Your task to perform on an android device: add a contact in the contacts app Image 0: 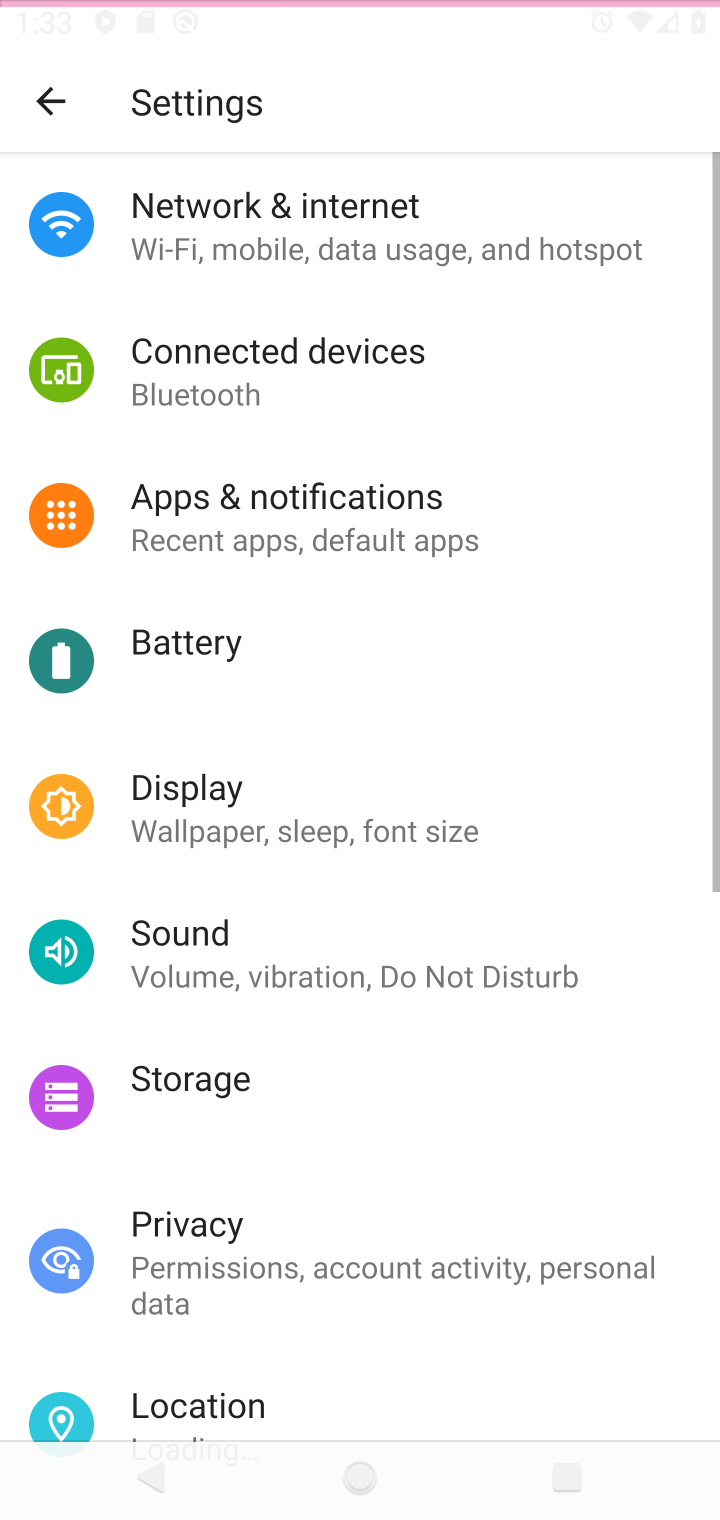
Step 0: press home button
Your task to perform on an android device: add a contact in the contacts app Image 1: 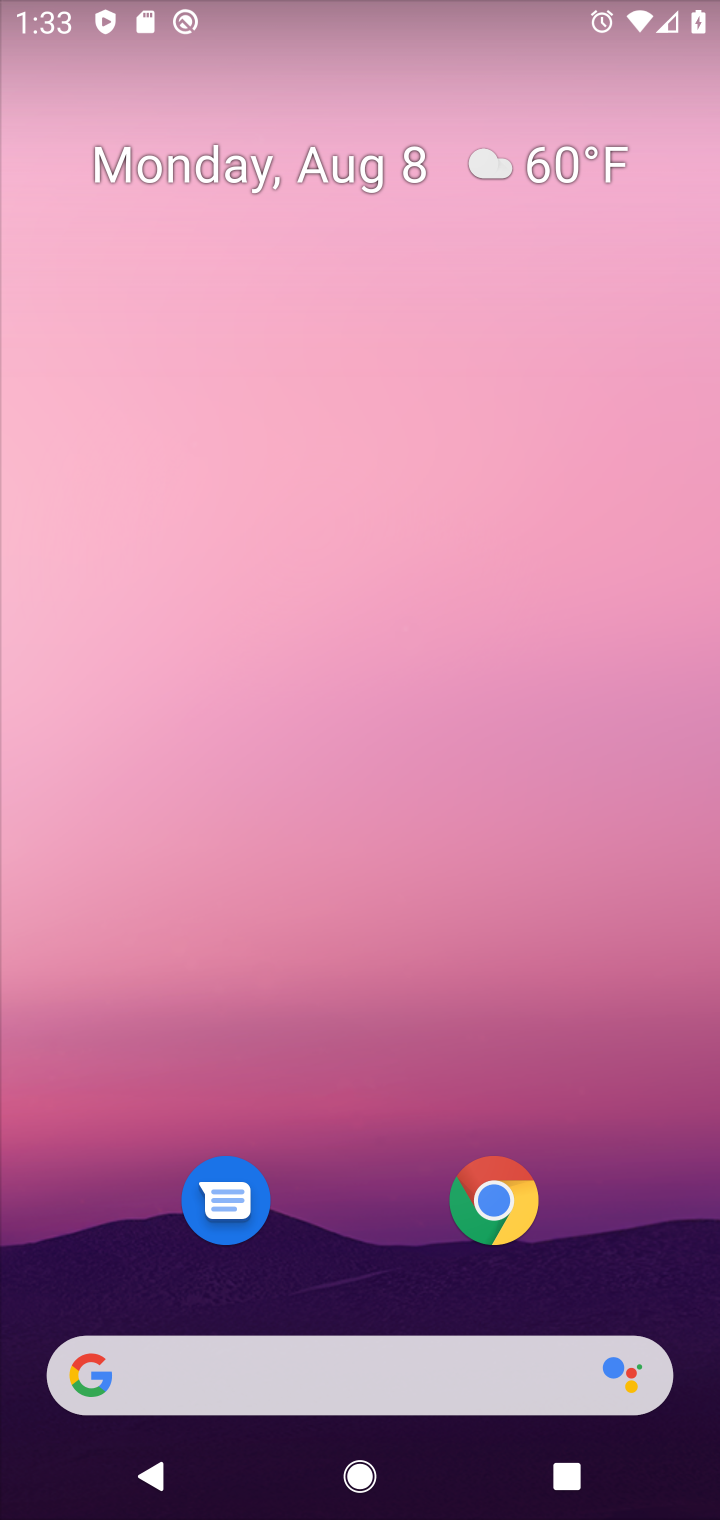
Step 1: press home button
Your task to perform on an android device: add a contact in the contacts app Image 2: 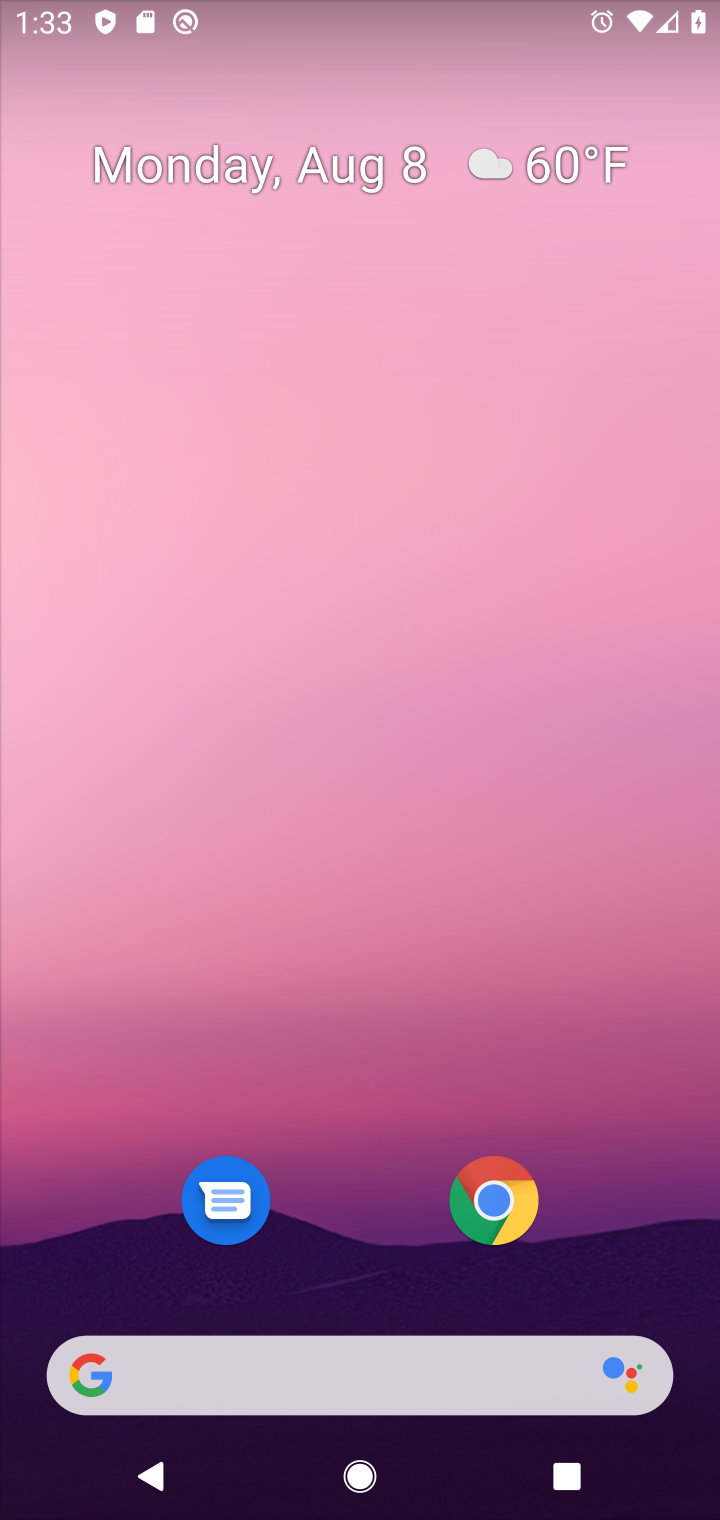
Step 2: drag from (402, 1266) to (463, 175)
Your task to perform on an android device: add a contact in the contacts app Image 3: 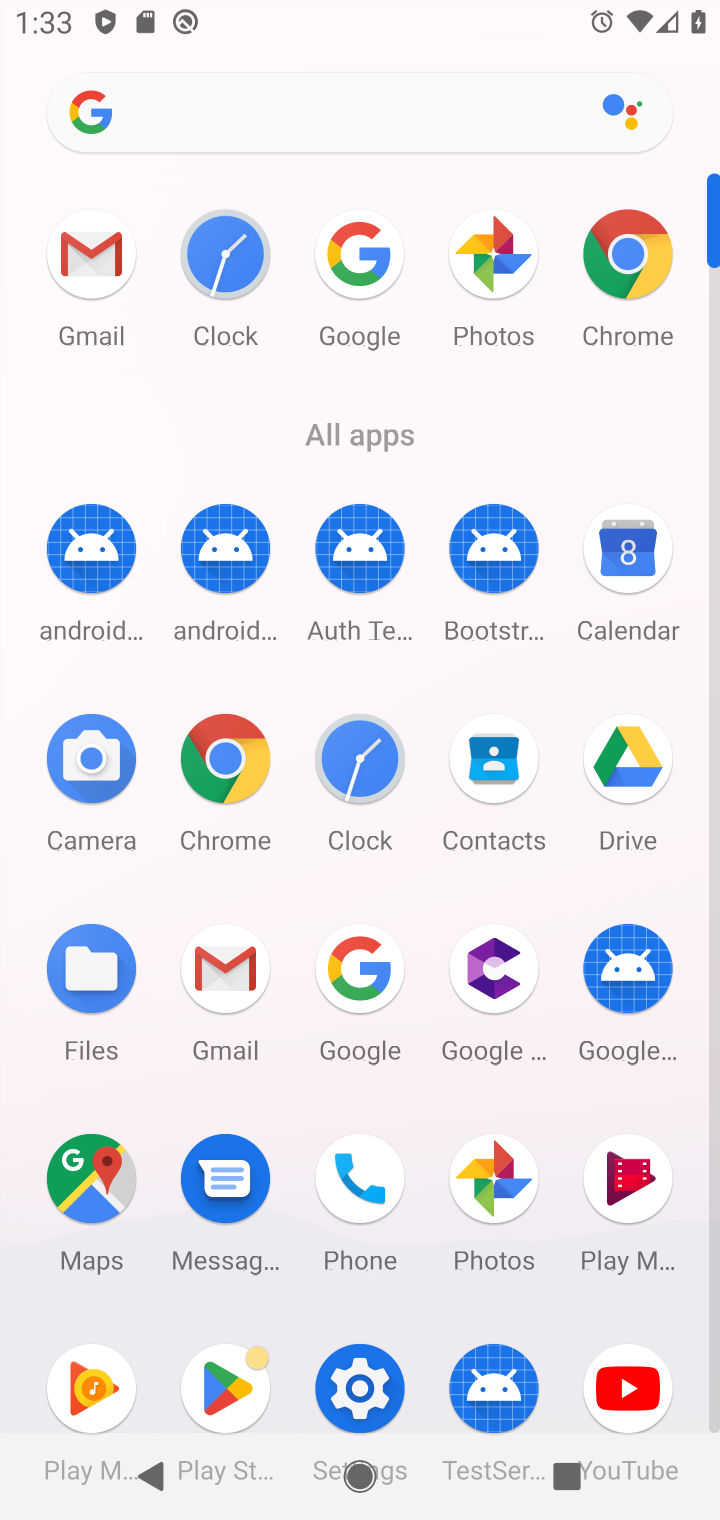
Step 3: click (508, 749)
Your task to perform on an android device: add a contact in the contacts app Image 4: 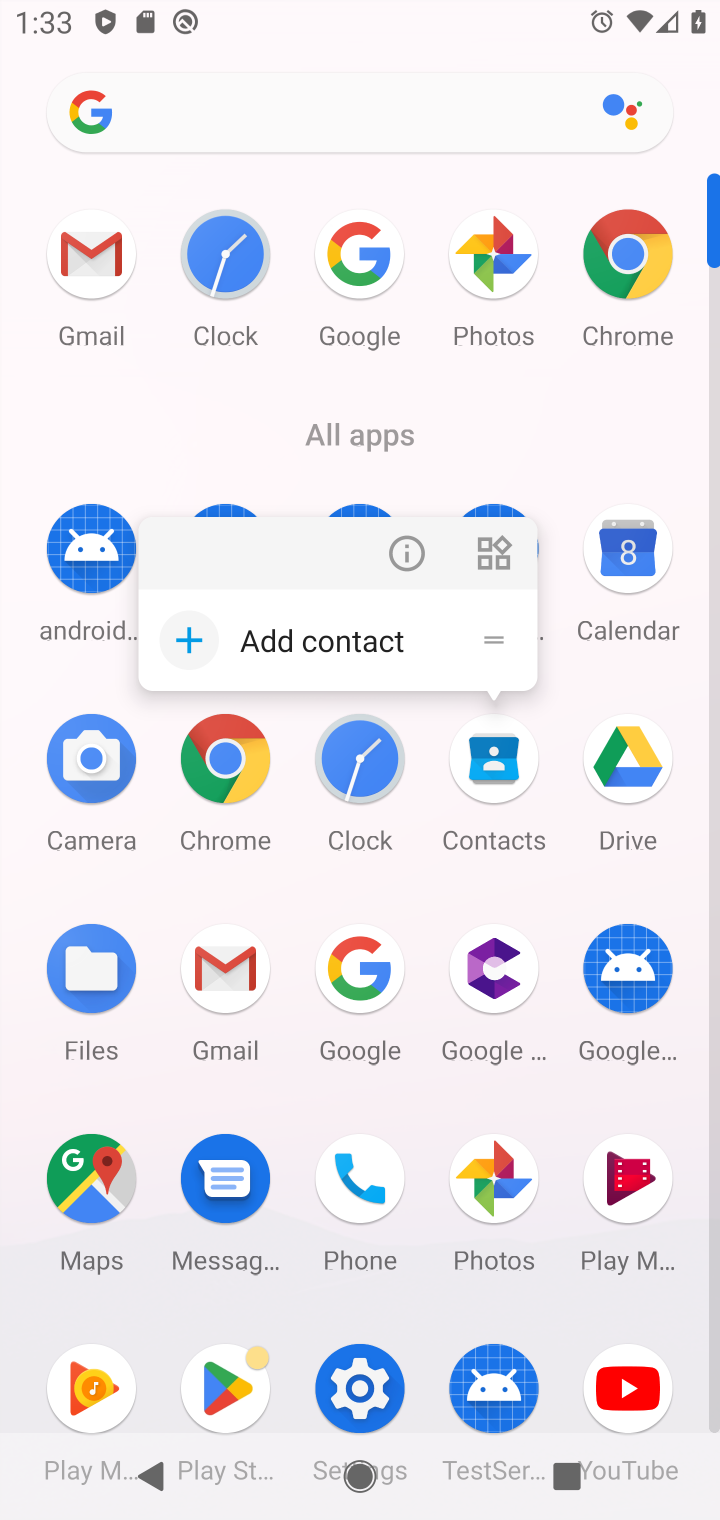
Step 4: click (485, 763)
Your task to perform on an android device: add a contact in the contacts app Image 5: 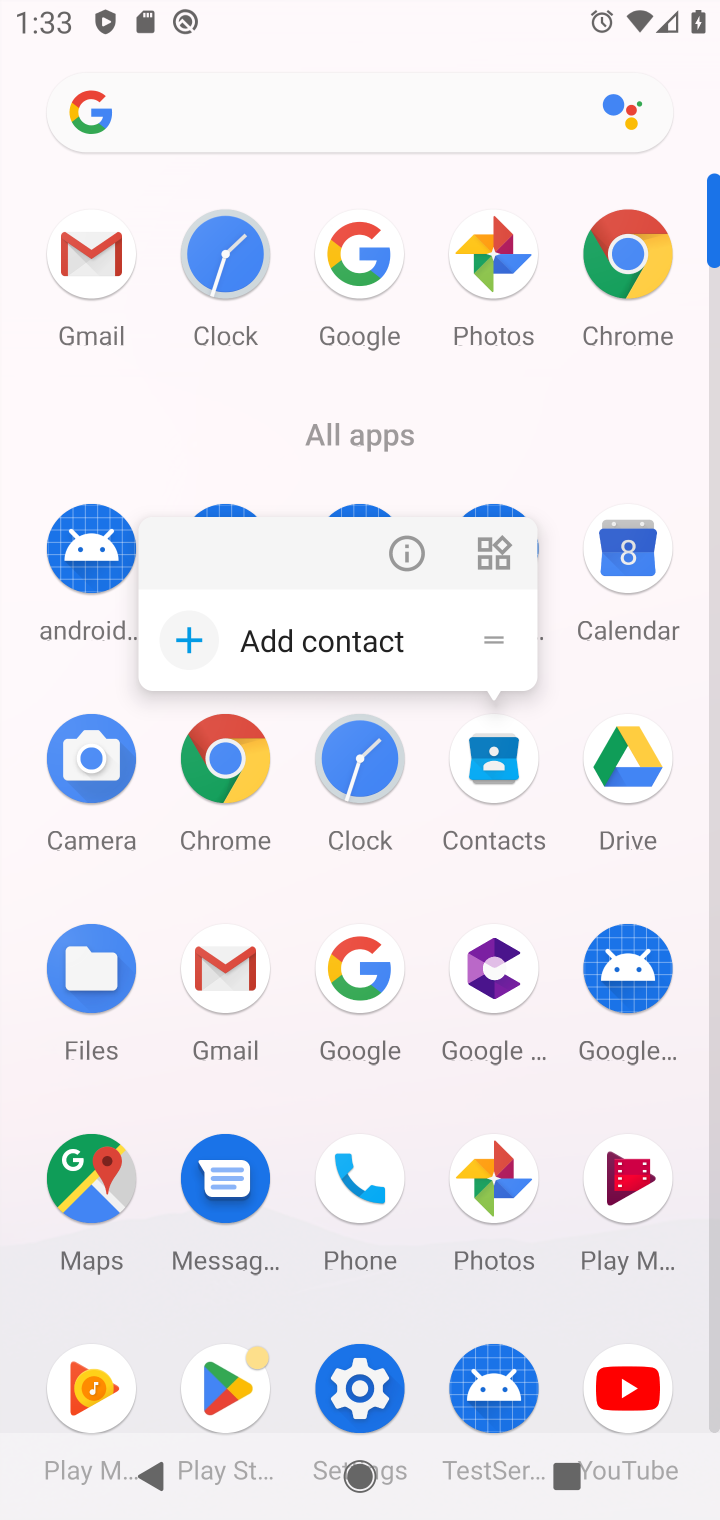
Step 5: click (492, 749)
Your task to perform on an android device: add a contact in the contacts app Image 6: 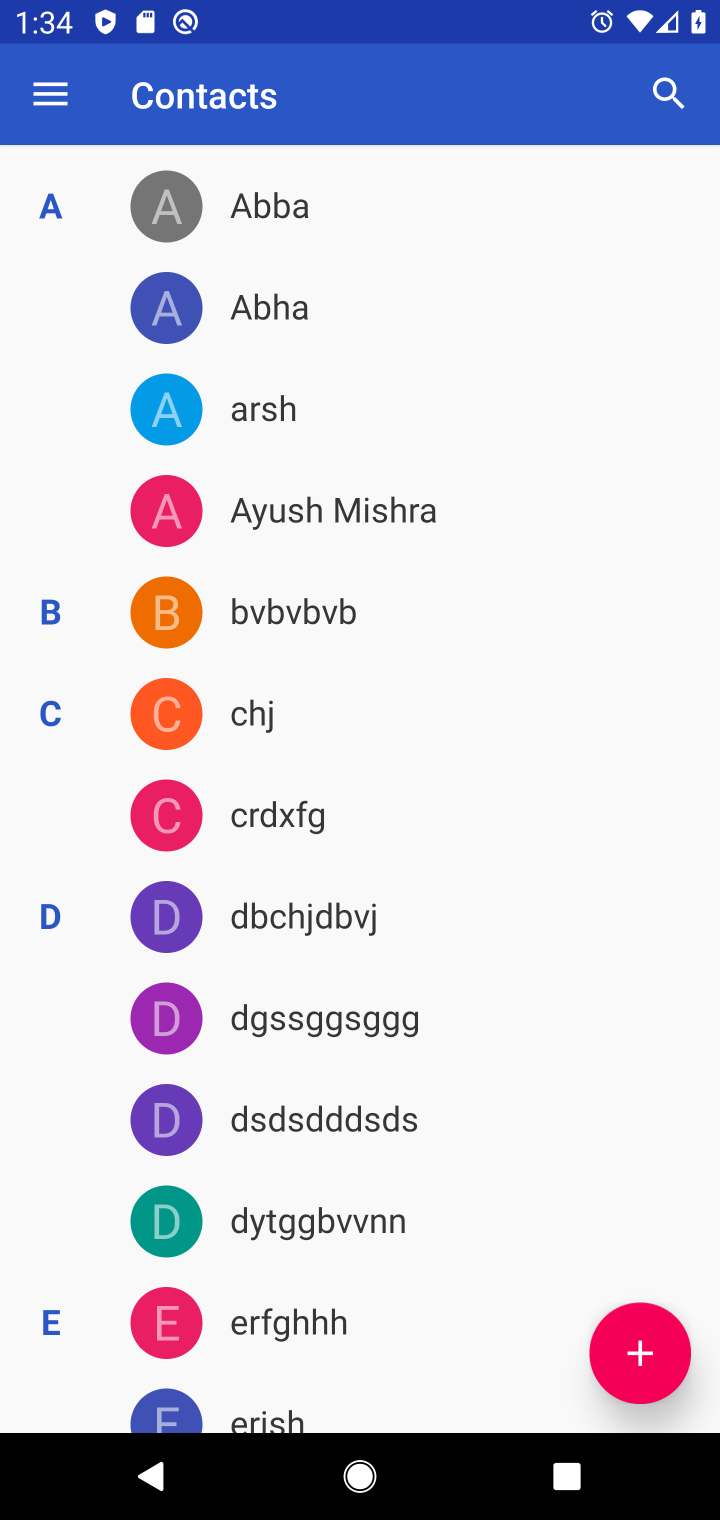
Step 6: click (644, 1326)
Your task to perform on an android device: add a contact in the contacts app Image 7: 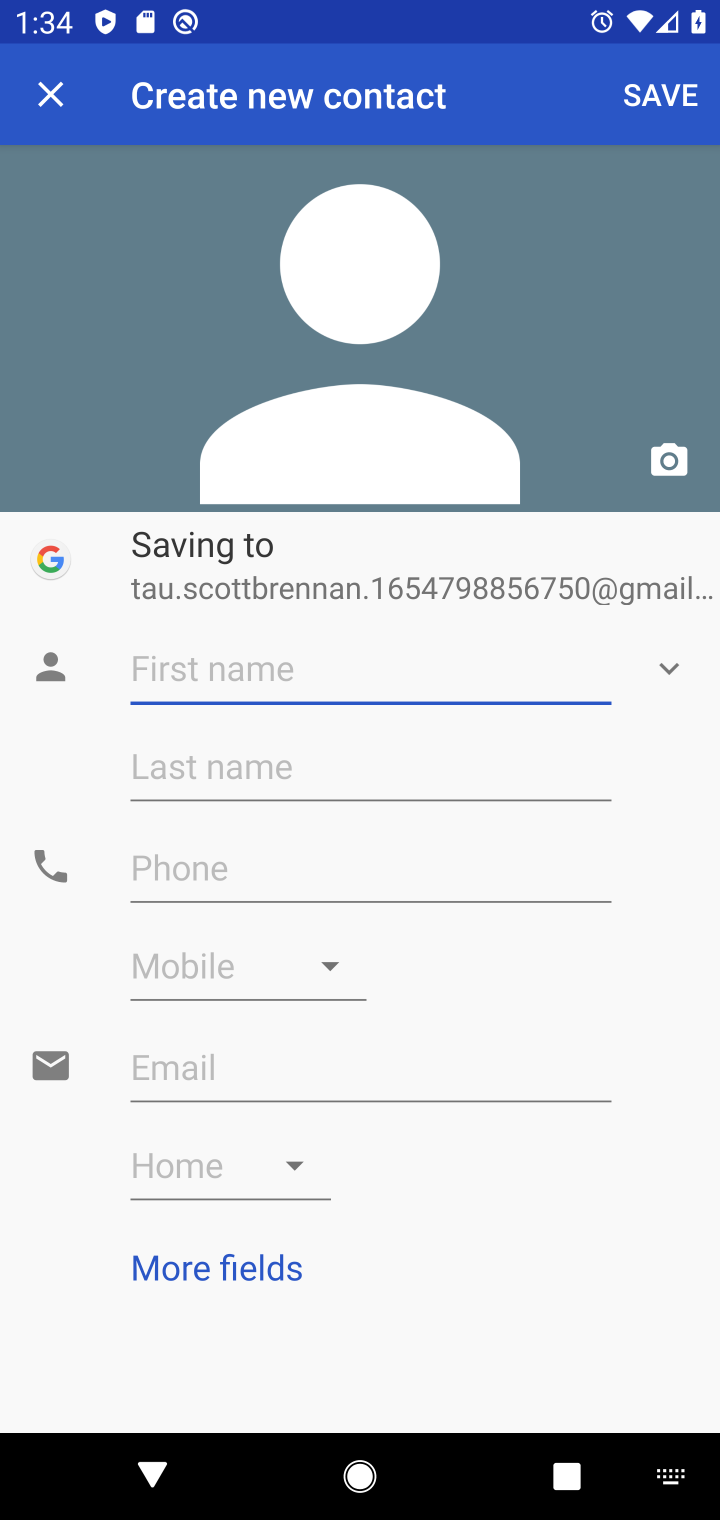
Step 7: type "frcrfvy"
Your task to perform on an android device: add a contact in the contacts app Image 8: 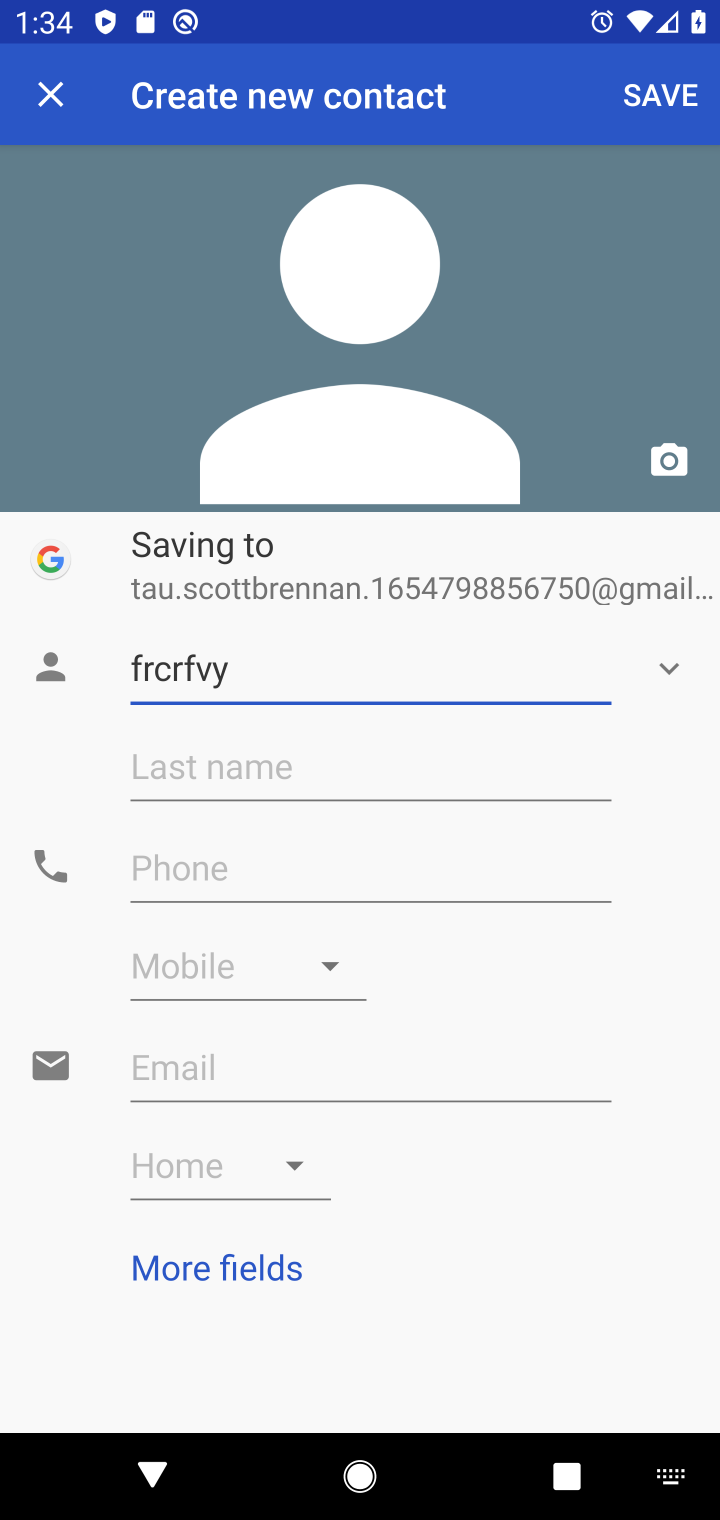
Step 8: click (641, 92)
Your task to perform on an android device: add a contact in the contacts app Image 9: 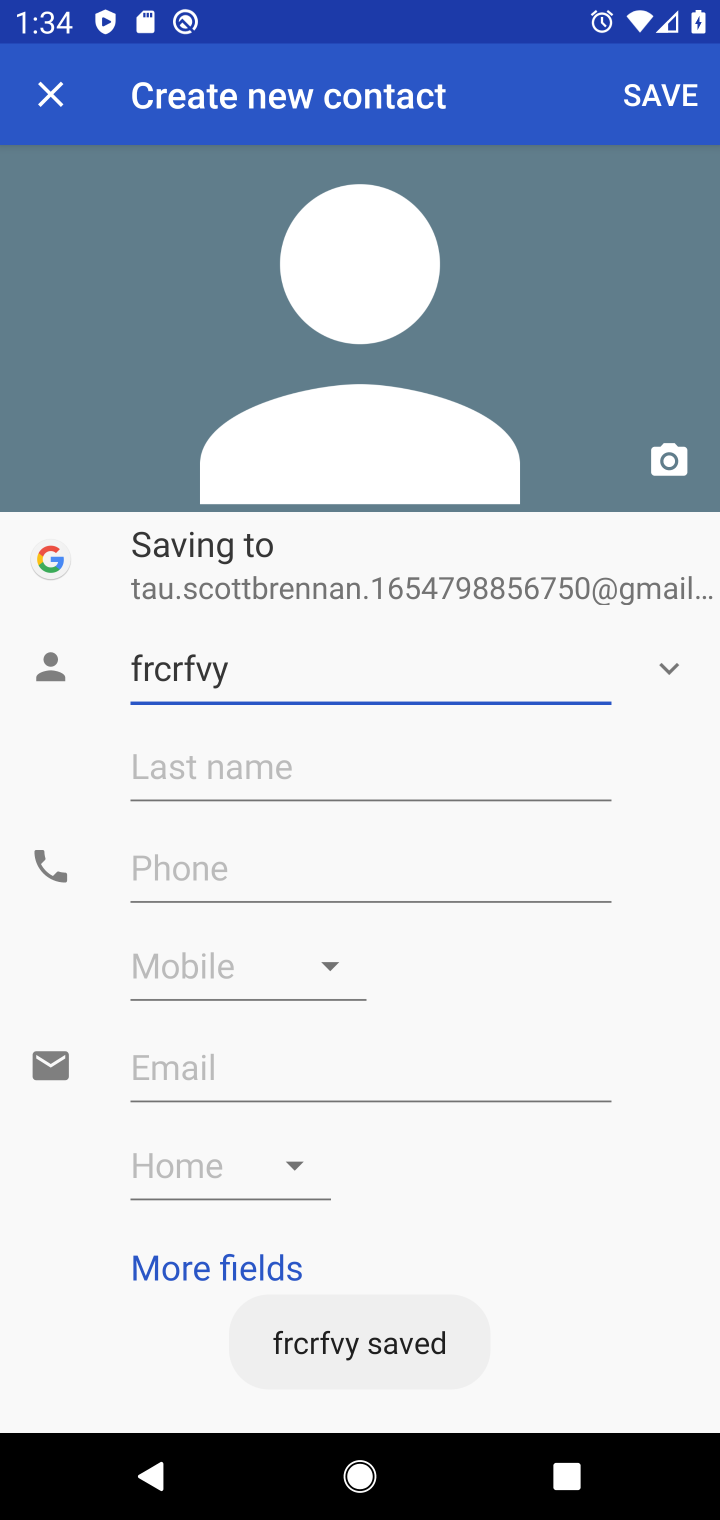
Step 9: task complete